Your task to perform on an android device: Go to Android settings Image 0: 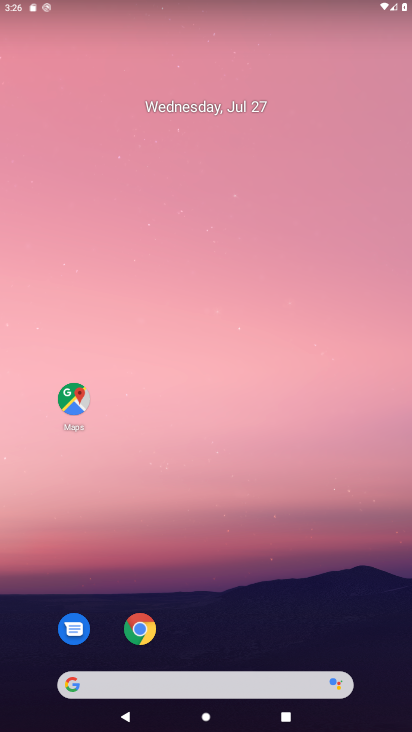
Step 0: press home button
Your task to perform on an android device: Go to Android settings Image 1: 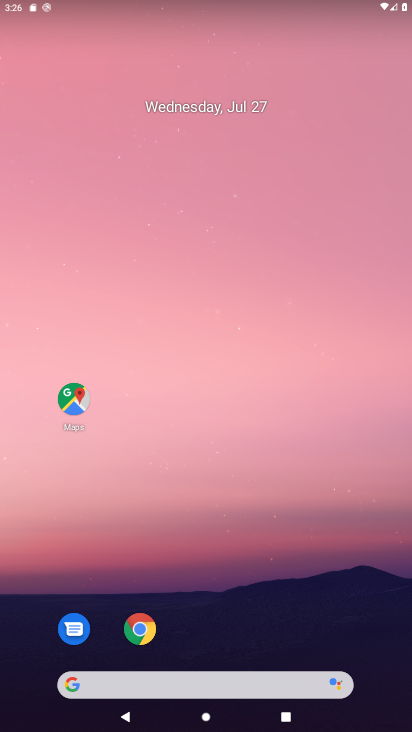
Step 1: drag from (251, 535) to (248, 132)
Your task to perform on an android device: Go to Android settings Image 2: 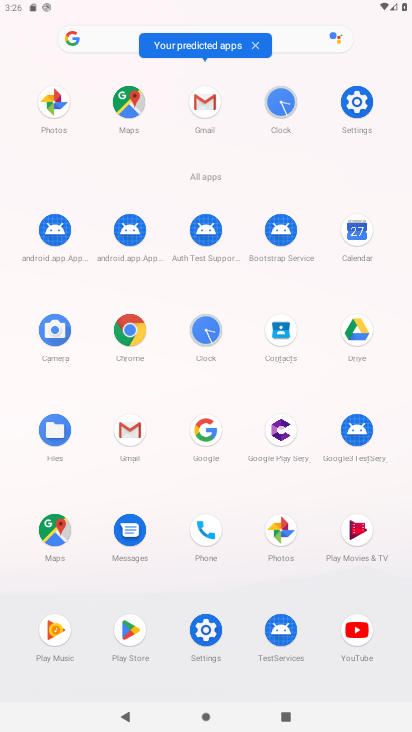
Step 2: click (180, 621)
Your task to perform on an android device: Go to Android settings Image 3: 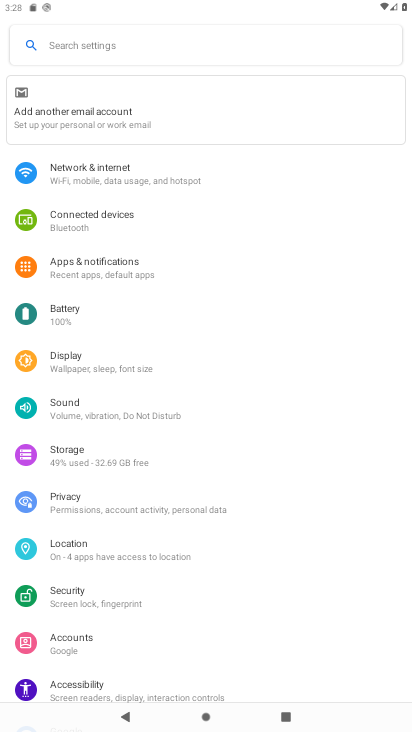
Step 3: drag from (121, 629) to (108, 447)
Your task to perform on an android device: Go to Android settings Image 4: 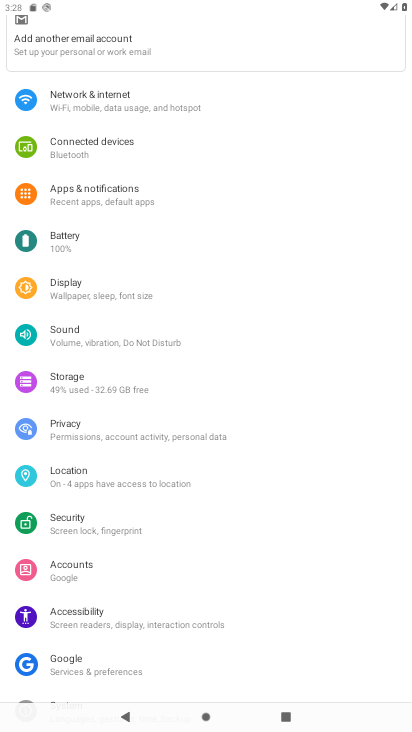
Step 4: drag from (74, 645) to (35, 255)
Your task to perform on an android device: Go to Android settings Image 5: 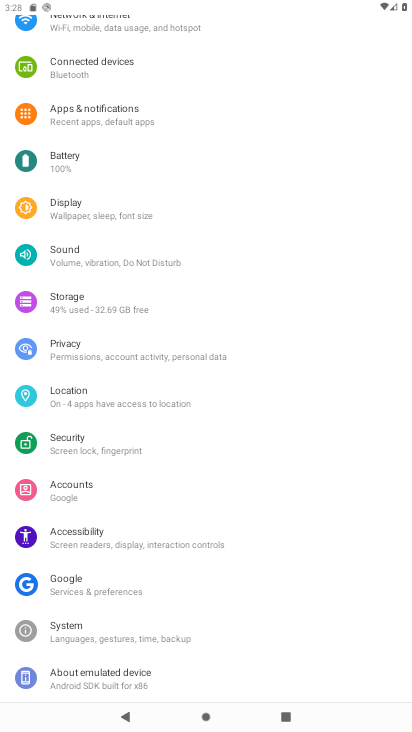
Step 5: click (105, 663)
Your task to perform on an android device: Go to Android settings Image 6: 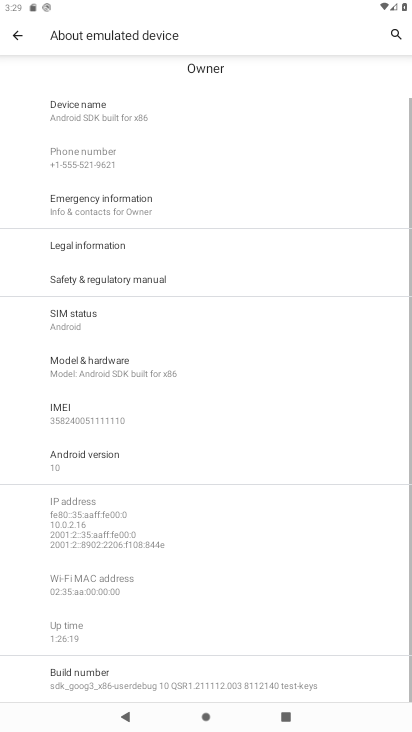
Step 6: click (47, 474)
Your task to perform on an android device: Go to Android settings Image 7: 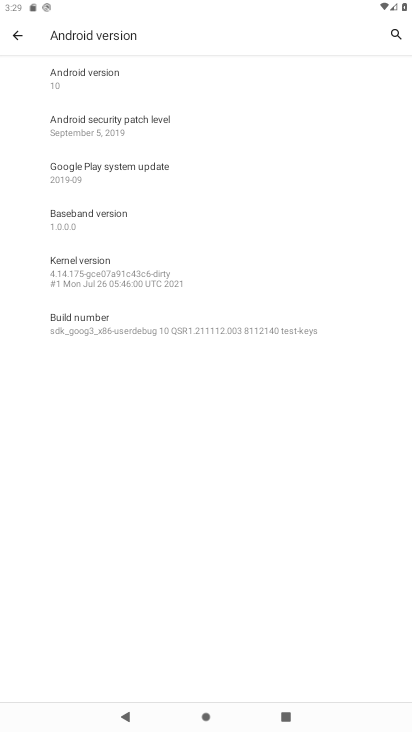
Step 7: task complete